Your task to perform on an android device: Is it going to rain today? Image 0: 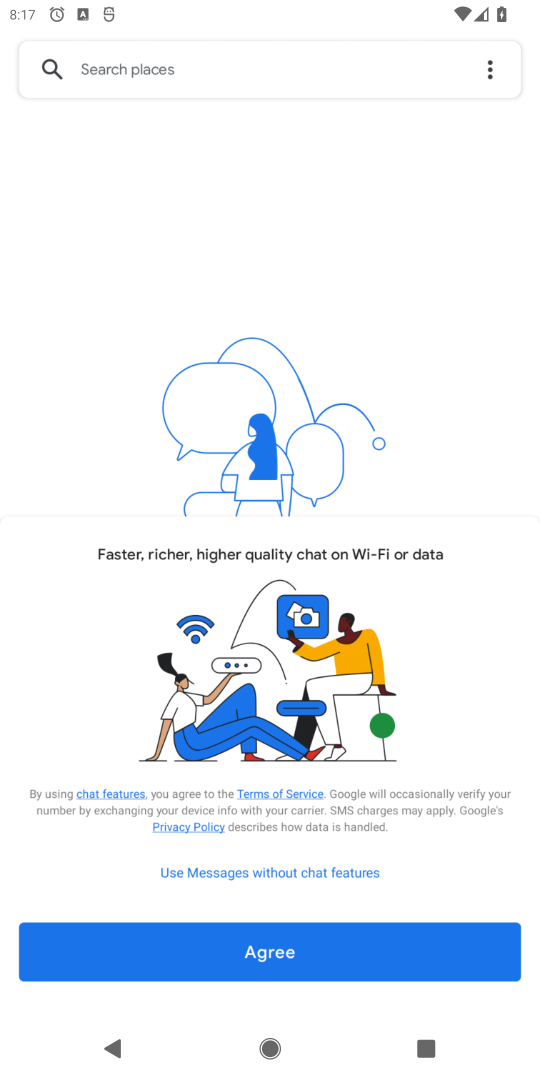
Step 0: press home button
Your task to perform on an android device: Is it going to rain today? Image 1: 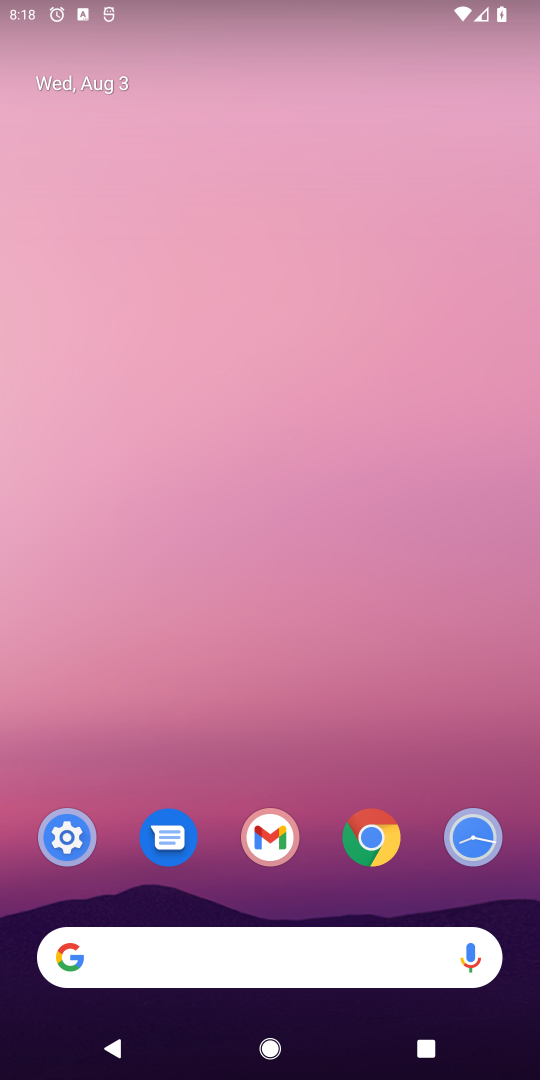
Step 1: click (75, 966)
Your task to perform on an android device: Is it going to rain today? Image 2: 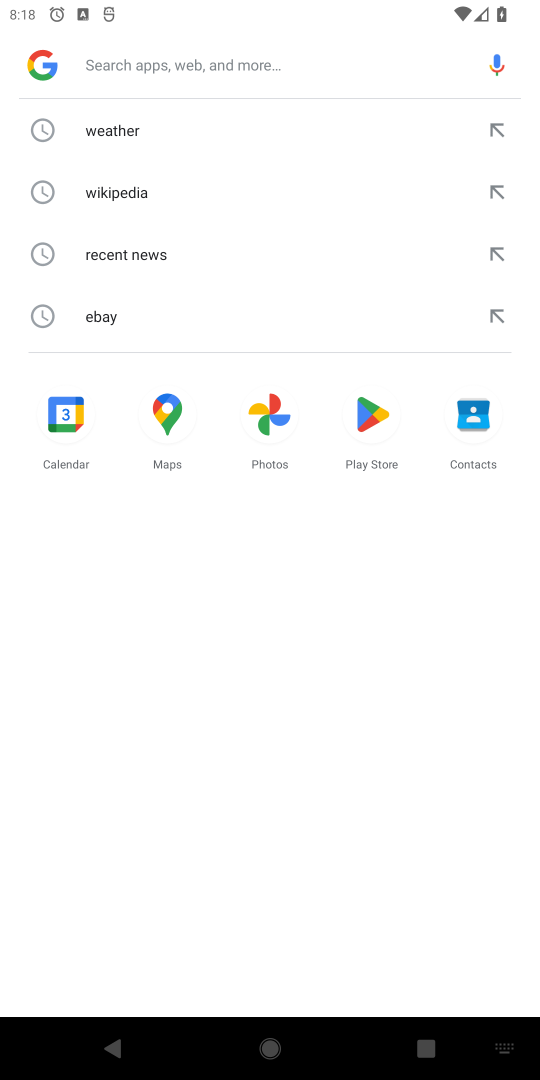
Step 2: press enter
Your task to perform on an android device: Is it going to rain today? Image 3: 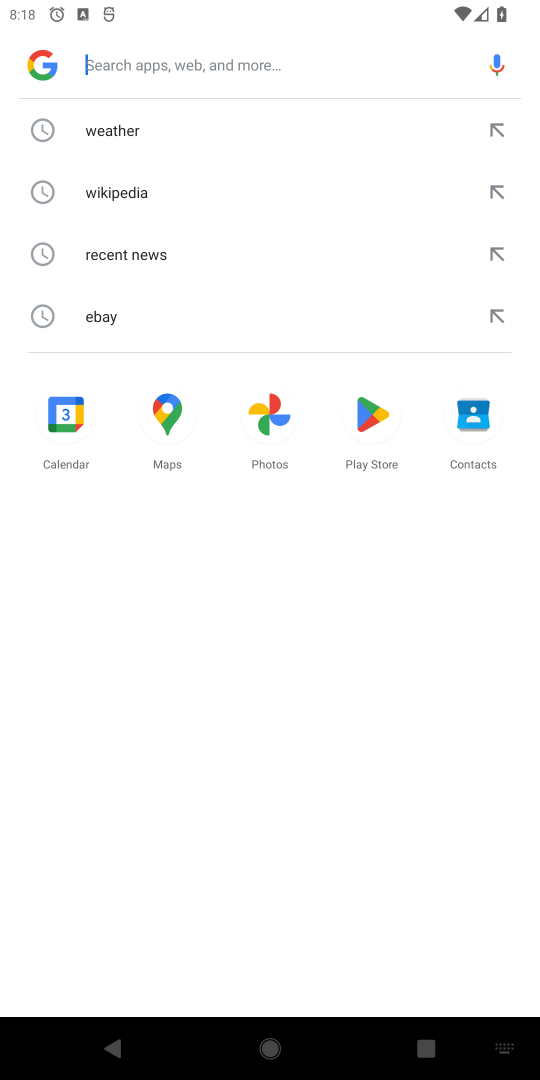
Step 3: type "rain today?"
Your task to perform on an android device: Is it going to rain today? Image 4: 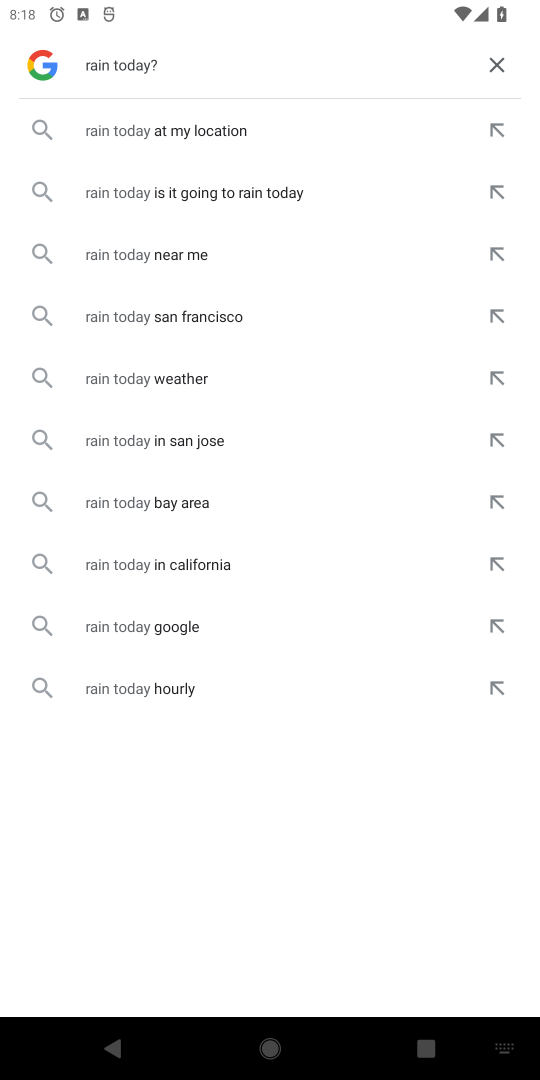
Step 4: press enter
Your task to perform on an android device: Is it going to rain today? Image 5: 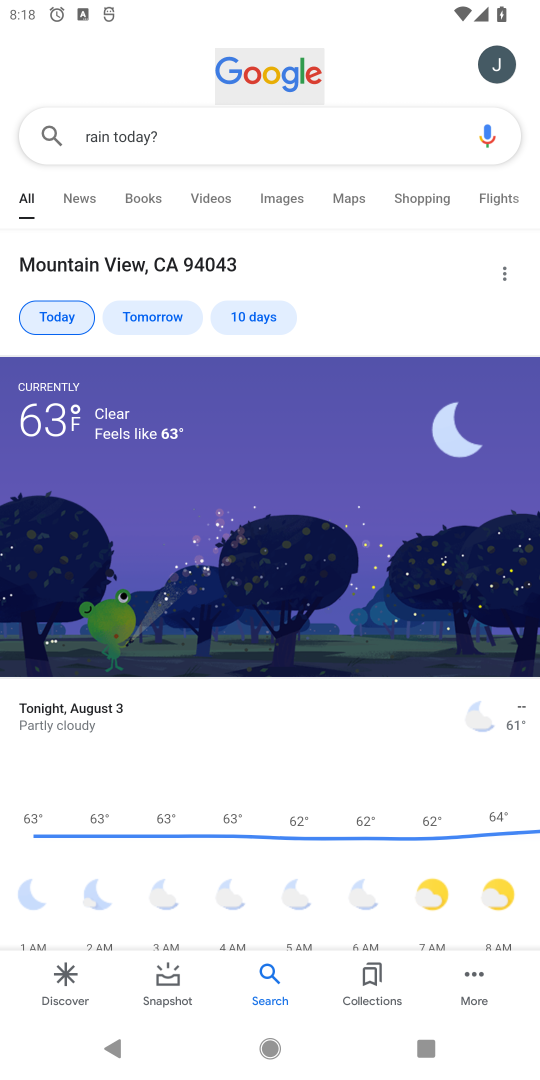
Step 5: task complete